Your task to perform on an android device: change the clock display to digital Image 0: 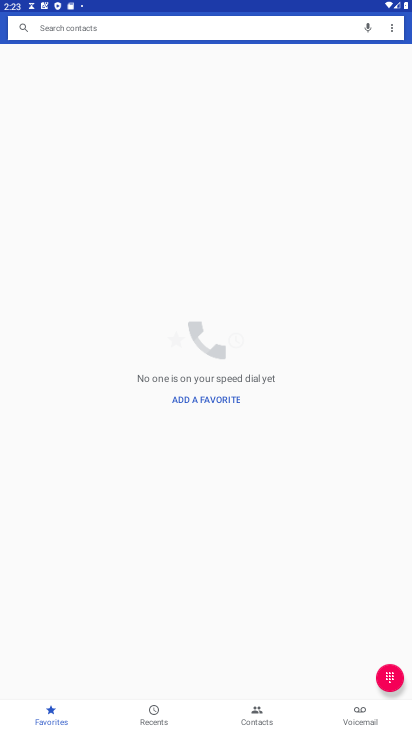
Step 0: press home button
Your task to perform on an android device: change the clock display to digital Image 1: 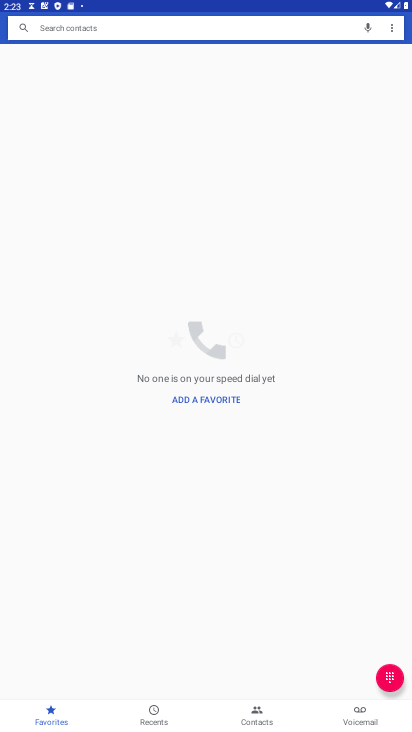
Step 1: drag from (195, 575) to (287, 177)
Your task to perform on an android device: change the clock display to digital Image 2: 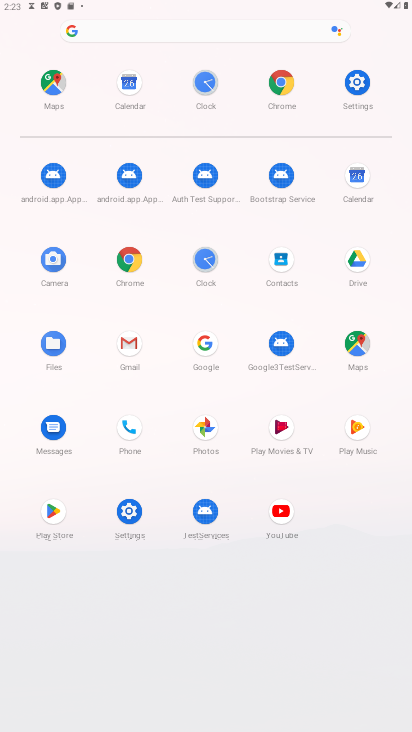
Step 2: click (206, 259)
Your task to perform on an android device: change the clock display to digital Image 3: 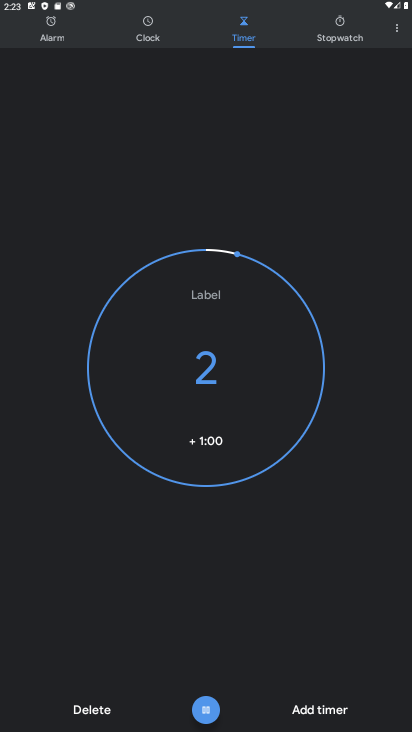
Step 3: drag from (399, 29) to (349, 49)
Your task to perform on an android device: change the clock display to digital Image 4: 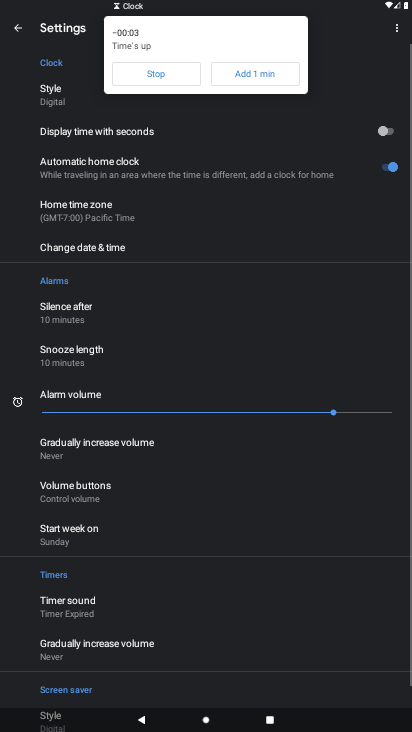
Step 4: click (148, 79)
Your task to perform on an android device: change the clock display to digital Image 5: 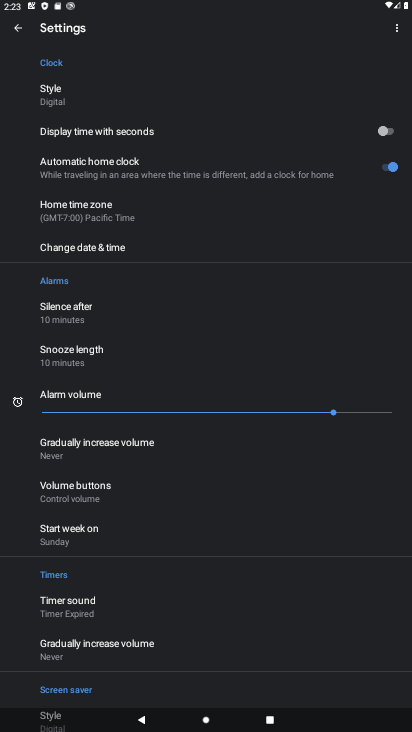
Step 5: click (65, 94)
Your task to perform on an android device: change the clock display to digital Image 6: 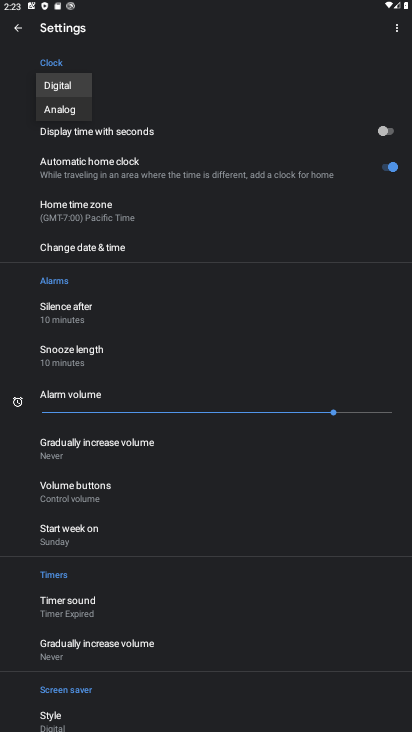
Step 6: task complete